Your task to perform on an android device: Open the phone app and click the voicemail tab. Image 0: 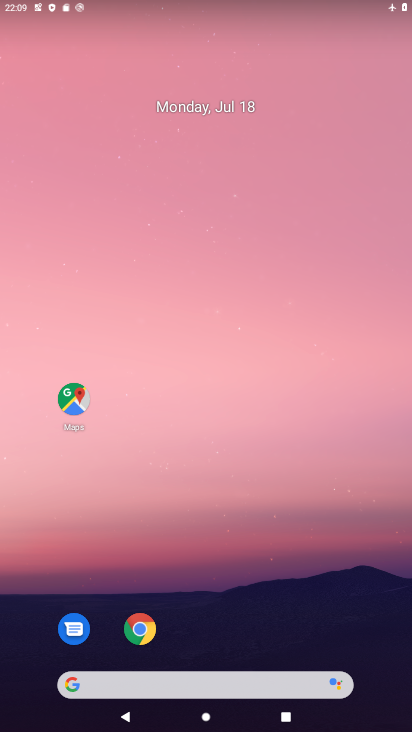
Step 0: drag from (276, 615) to (324, 297)
Your task to perform on an android device: Open the phone app and click the voicemail tab. Image 1: 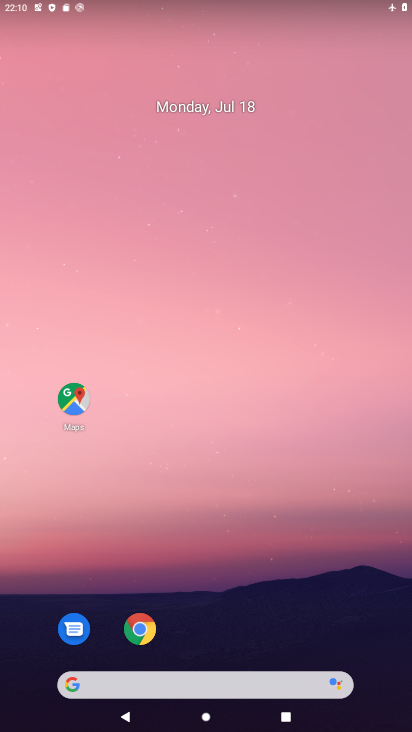
Step 1: drag from (206, 642) to (238, 379)
Your task to perform on an android device: Open the phone app and click the voicemail tab. Image 2: 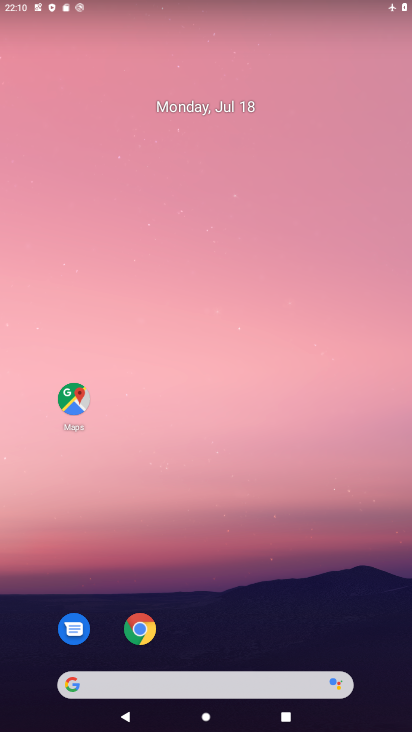
Step 2: drag from (256, 569) to (217, 222)
Your task to perform on an android device: Open the phone app and click the voicemail tab. Image 3: 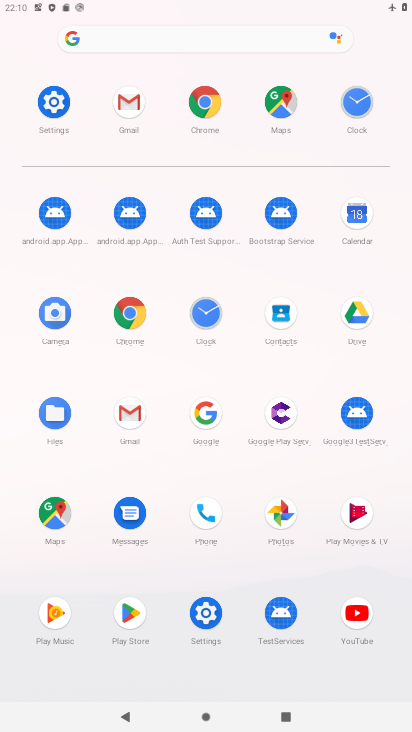
Step 3: click (201, 506)
Your task to perform on an android device: Open the phone app and click the voicemail tab. Image 4: 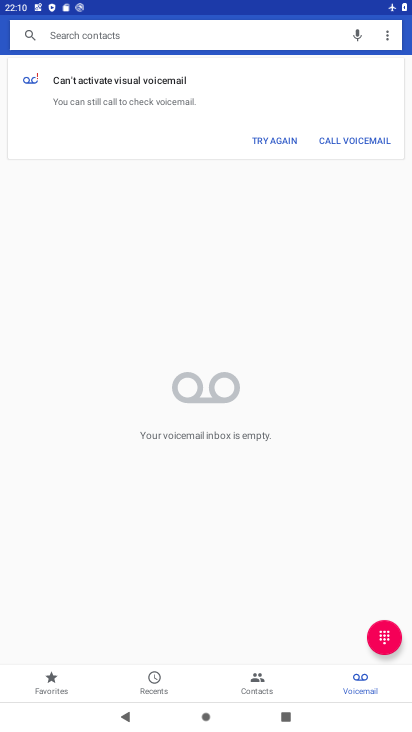
Step 4: click (374, 679)
Your task to perform on an android device: Open the phone app and click the voicemail tab. Image 5: 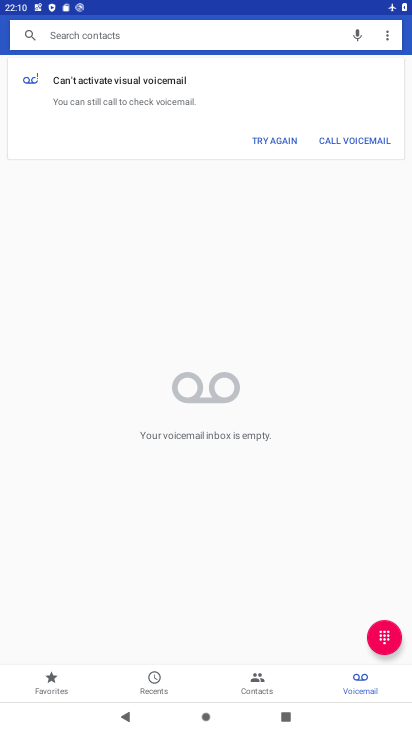
Step 5: task complete